Your task to perform on an android device: Open the phone app and click the voicemail tab. Image 0: 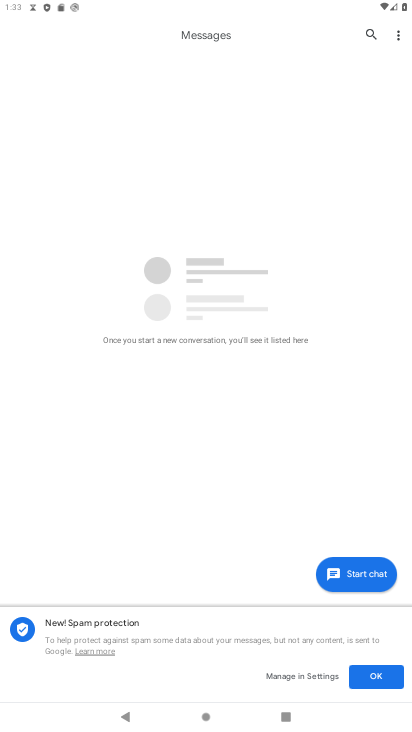
Step 0: press home button
Your task to perform on an android device: Open the phone app and click the voicemail tab. Image 1: 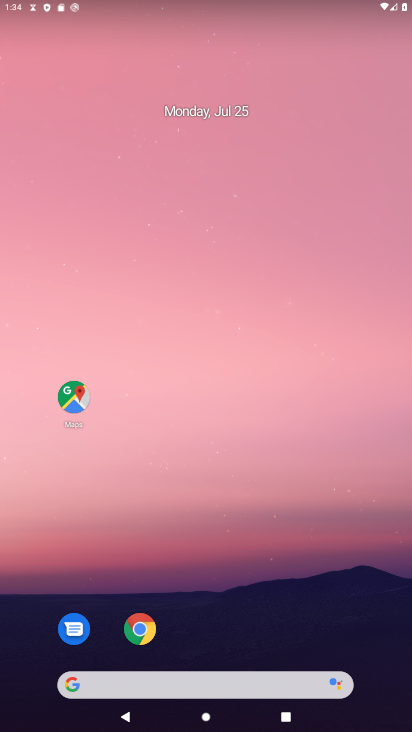
Step 1: drag from (242, 627) to (191, 56)
Your task to perform on an android device: Open the phone app and click the voicemail tab. Image 2: 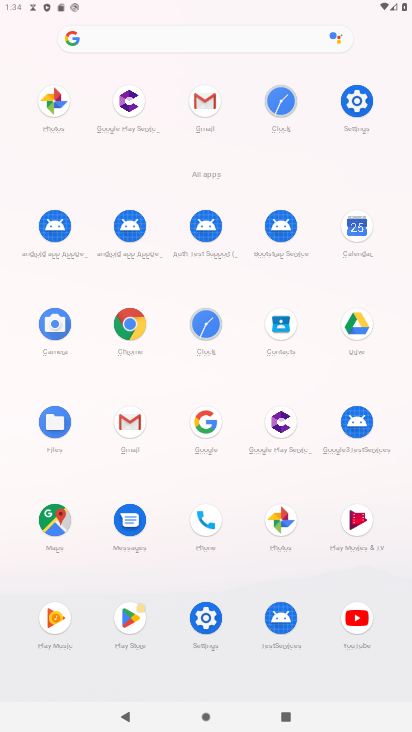
Step 2: click (201, 525)
Your task to perform on an android device: Open the phone app and click the voicemail tab. Image 3: 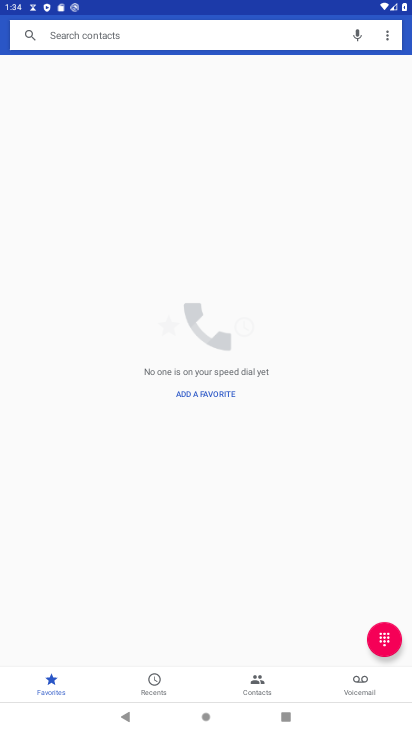
Step 3: click (359, 687)
Your task to perform on an android device: Open the phone app and click the voicemail tab. Image 4: 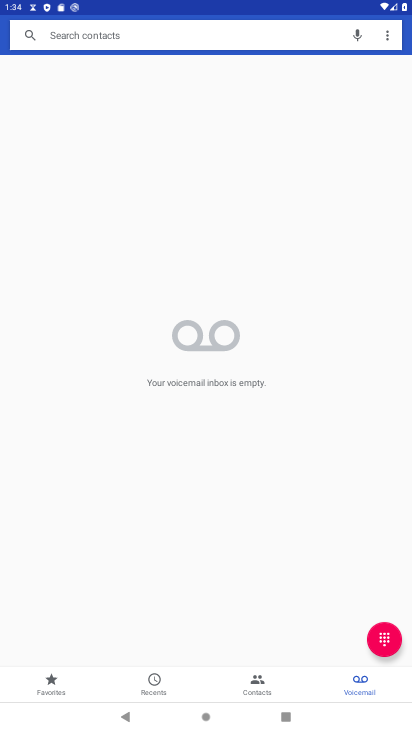
Step 4: task complete